Your task to perform on an android device: create a new album in the google photos Image 0: 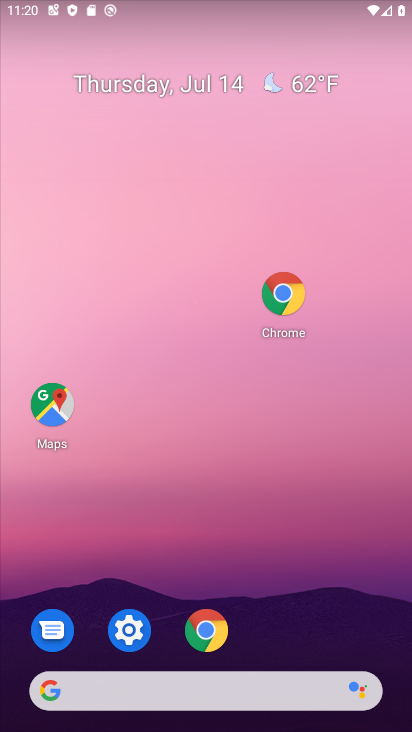
Step 0: drag from (282, 560) to (219, 148)
Your task to perform on an android device: create a new album in the google photos Image 1: 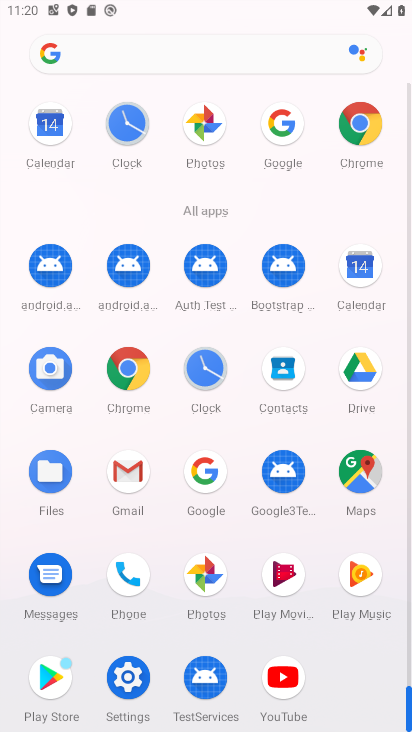
Step 1: click (205, 580)
Your task to perform on an android device: create a new album in the google photos Image 2: 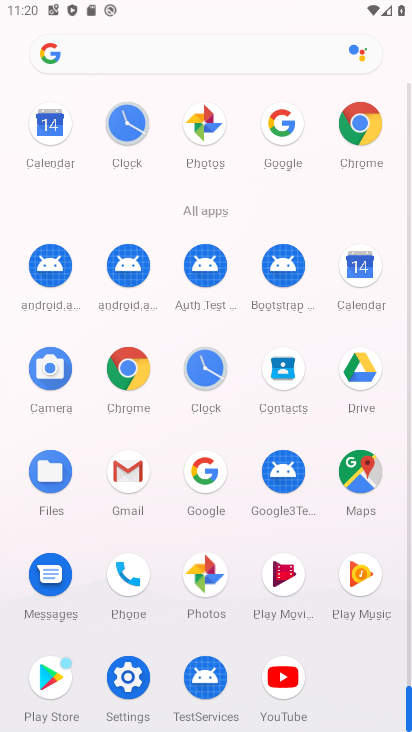
Step 2: click (204, 581)
Your task to perform on an android device: create a new album in the google photos Image 3: 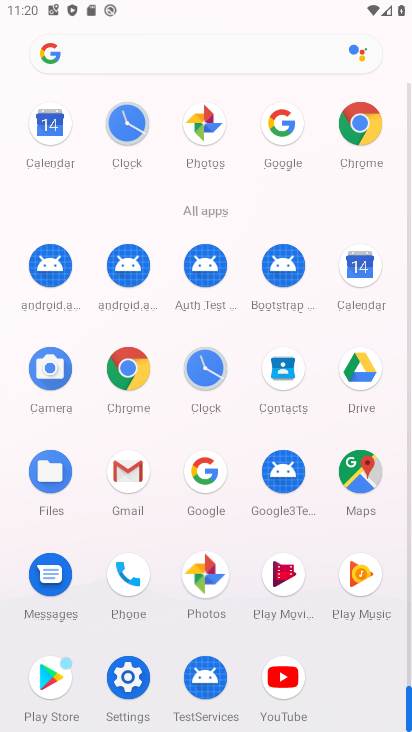
Step 3: click (204, 581)
Your task to perform on an android device: create a new album in the google photos Image 4: 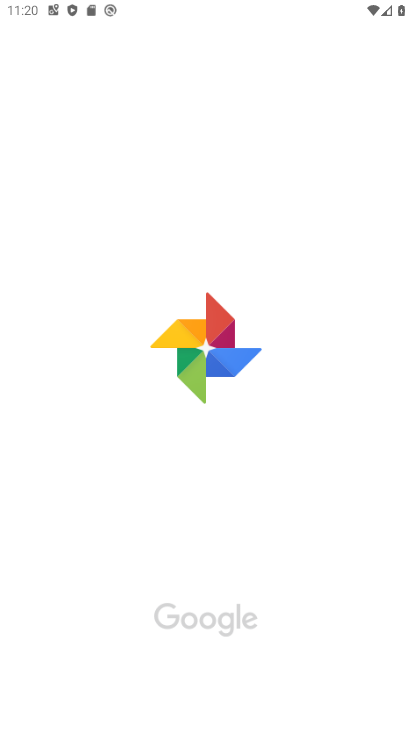
Step 4: click (211, 578)
Your task to perform on an android device: create a new album in the google photos Image 5: 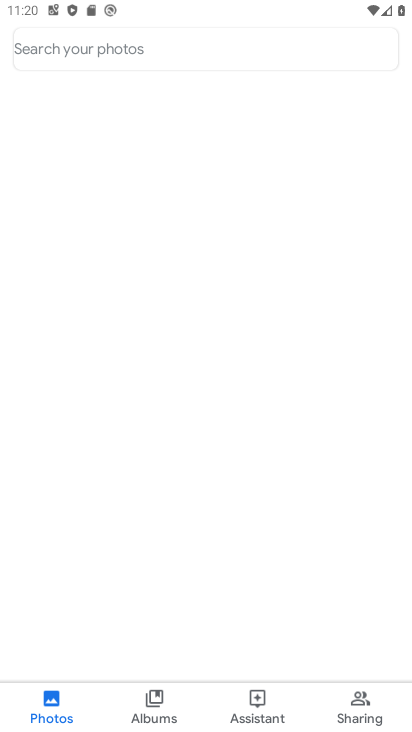
Step 5: click (212, 577)
Your task to perform on an android device: create a new album in the google photos Image 6: 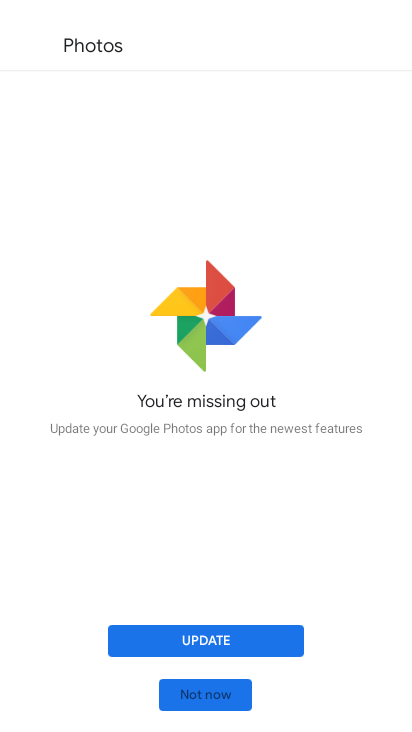
Step 6: click (230, 484)
Your task to perform on an android device: create a new album in the google photos Image 7: 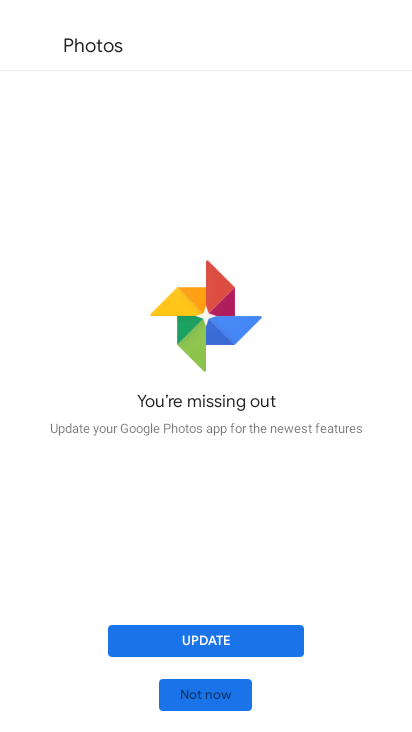
Step 7: click (234, 497)
Your task to perform on an android device: create a new album in the google photos Image 8: 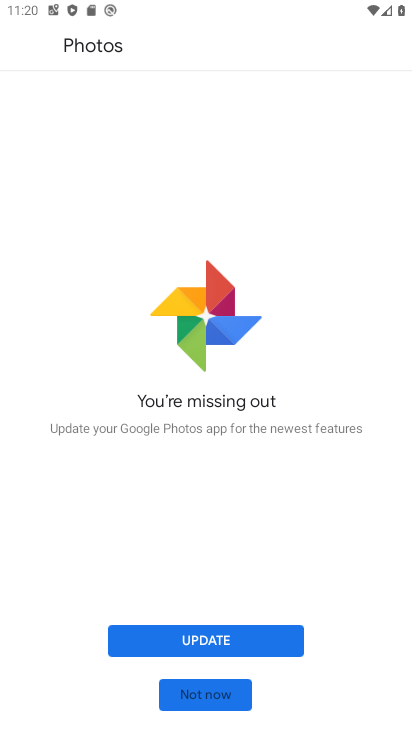
Step 8: click (231, 492)
Your task to perform on an android device: create a new album in the google photos Image 9: 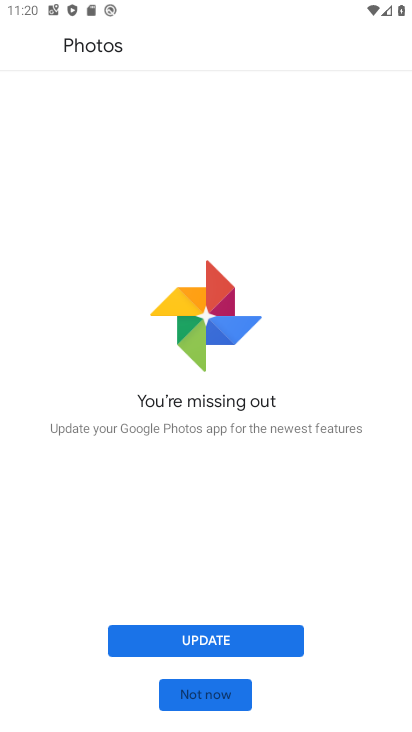
Step 9: click (199, 697)
Your task to perform on an android device: create a new album in the google photos Image 10: 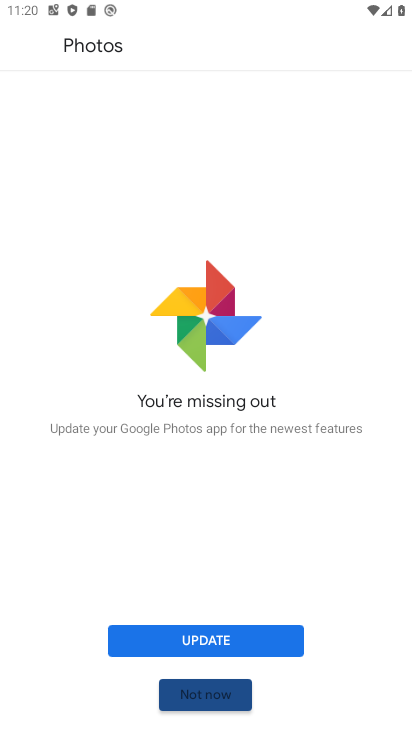
Step 10: click (199, 697)
Your task to perform on an android device: create a new album in the google photos Image 11: 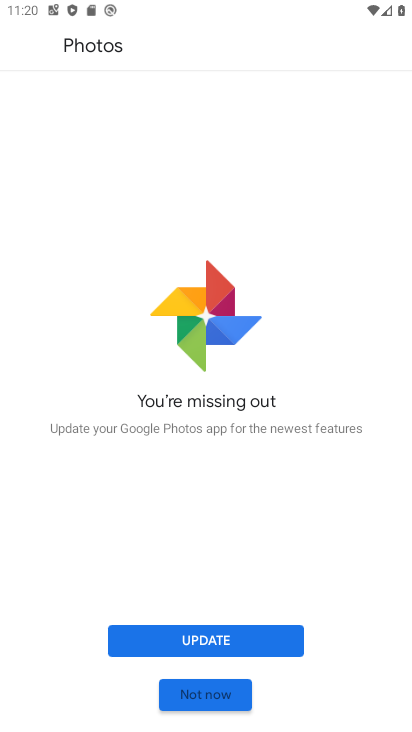
Step 11: click (200, 697)
Your task to perform on an android device: create a new album in the google photos Image 12: 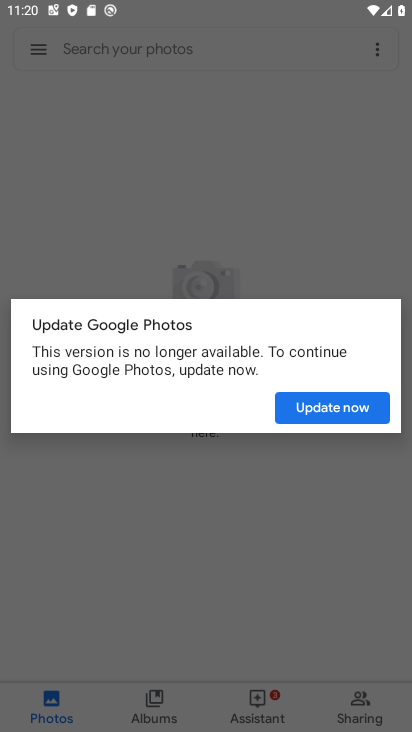
Step 12: click (321, 404)
Your task to perform on an android device: create a new album in the google photos Image 13: 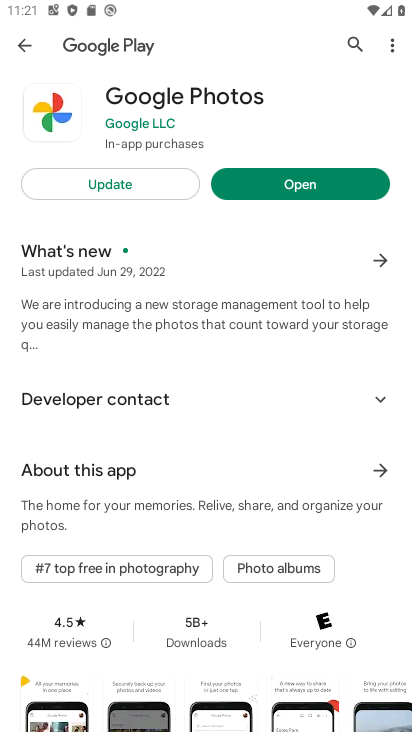
Step 13: click (277, 179)
Your task to perform on an android device: create a new album in the google photos Image 14: 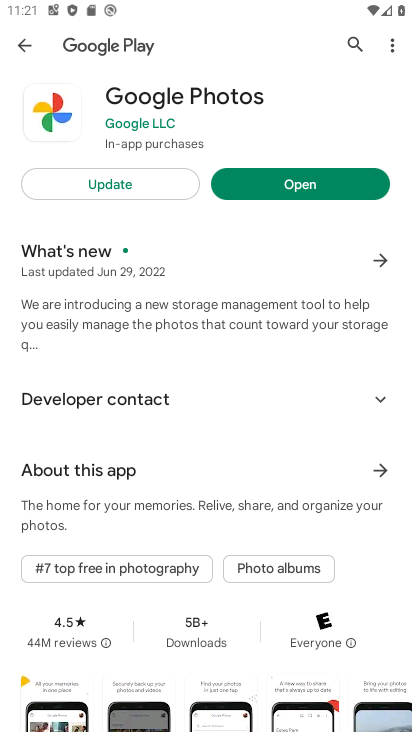
Step 14: click (278, 179)
Your task to perform on an android device: create a new album in the google photos Image 15: 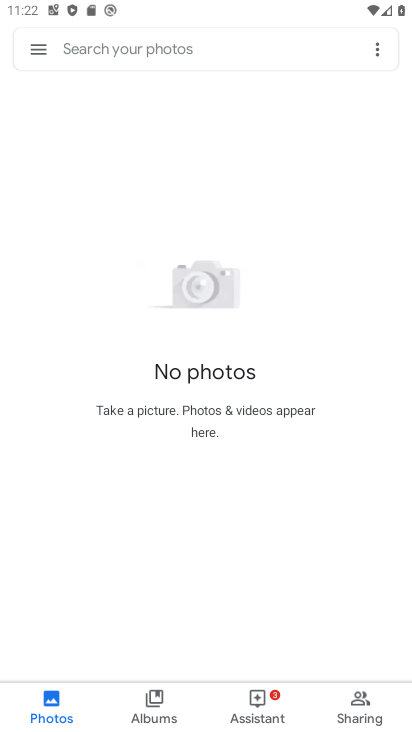
Step 15: press back button
Your task to perform on an android device: create a new album in the google photos Image 16: 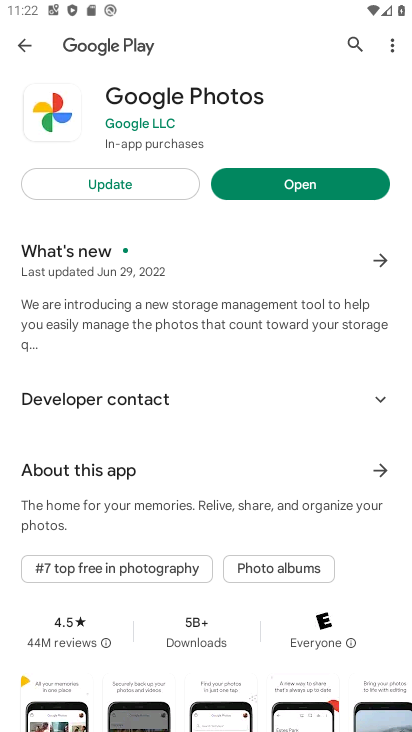
Step 16: click (139, 186)
Your task to perform on an android device: create a new album in the google photos Image 17: 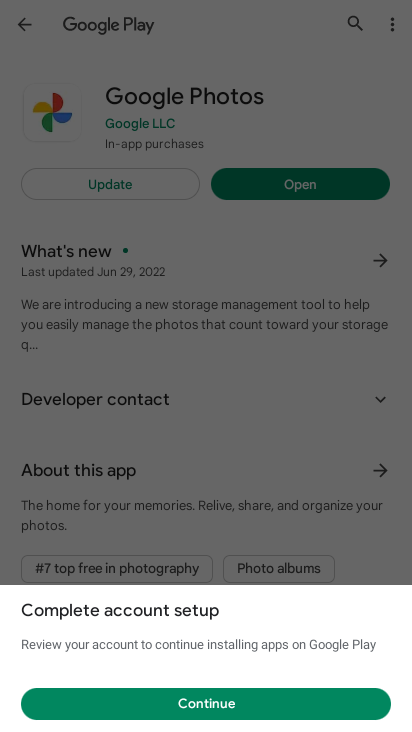
Step 17: task complete